Your task to perform on an android device: open the mobile data screen to see how much data has been used Image 0: 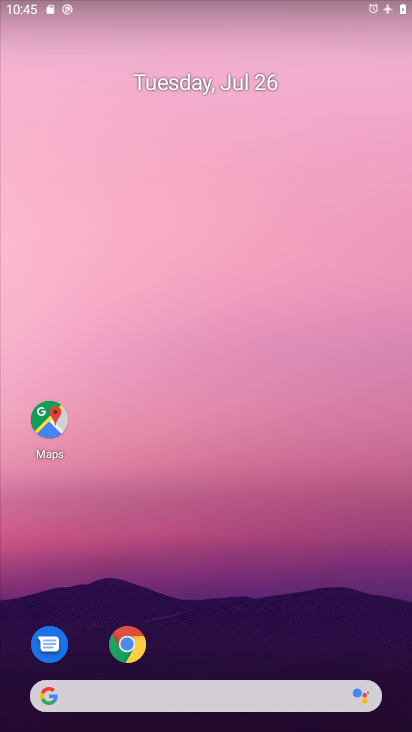
Step 0: drag from (211, 657) to (239, 109)
Your task to perform on an android device: open the mobile data screen to see how much data has been used Image 1: 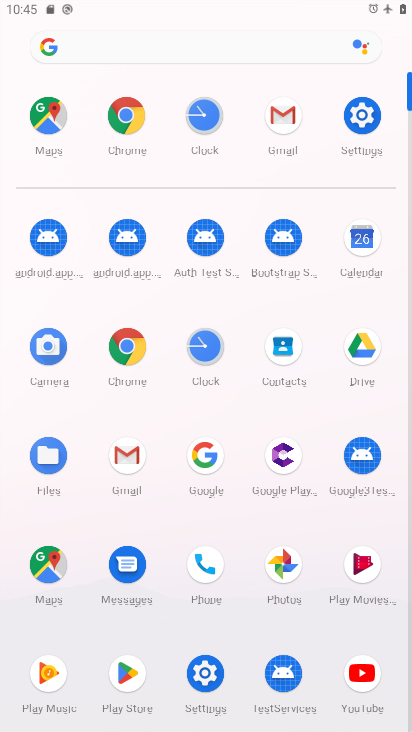
Step 1: click (358, 142)
Your task to perform on an android device: open the mobile data screen to see how much data has been used Image 2: 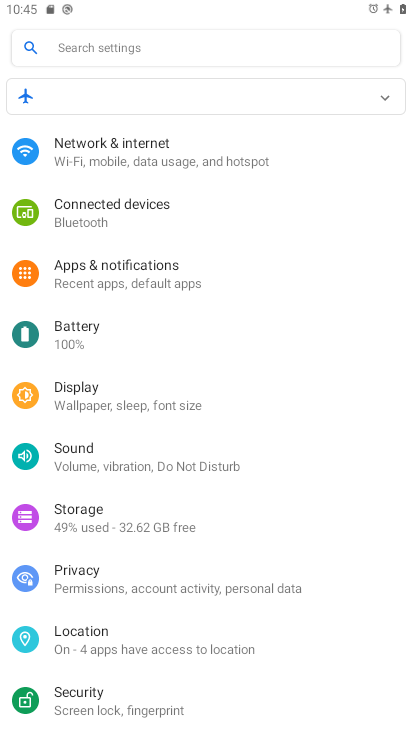
Step 2: click (143, 152)
Your task to perform on an android device: open the mobile data screen to see how much data has been used Image 3: 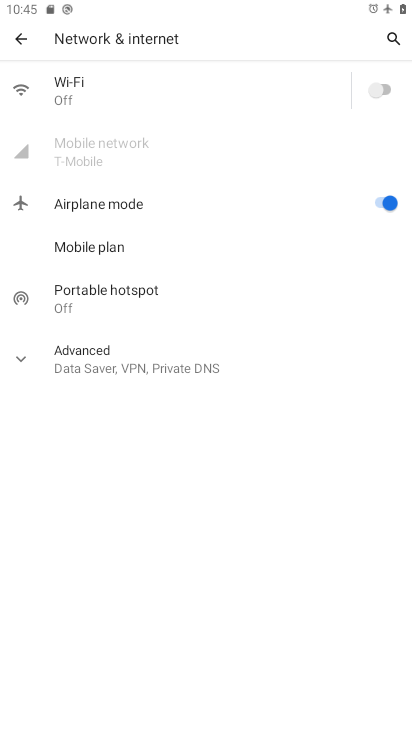
Step 3: click (372, 202)
Your task to perform on an android device: open the mobile data screen to see how much data has been used Image 4: 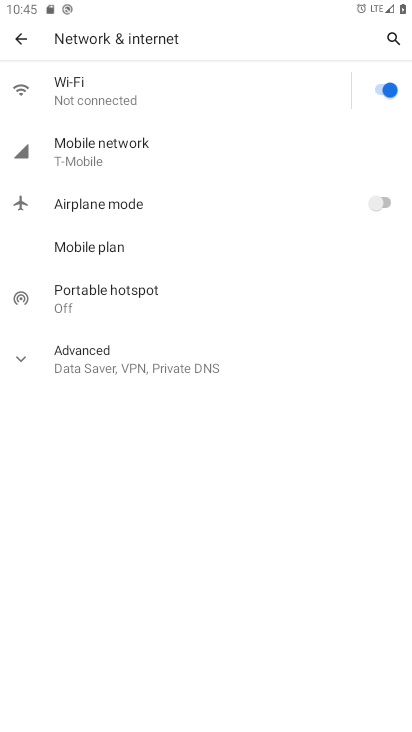
Step 4: click (133, 146)
Your task to perform on an android device: open the mobile data screen to see how much data has been used Image 5: 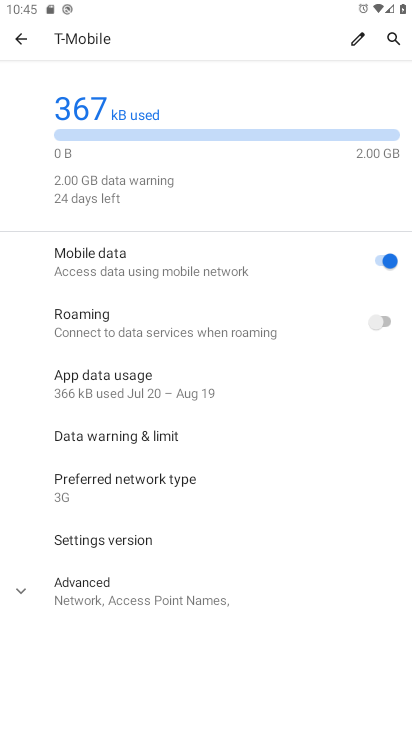
Step 5: click (158, 388)
Your task to perform on an android device: open the mobile data screen to see how much data has been used Image 6: 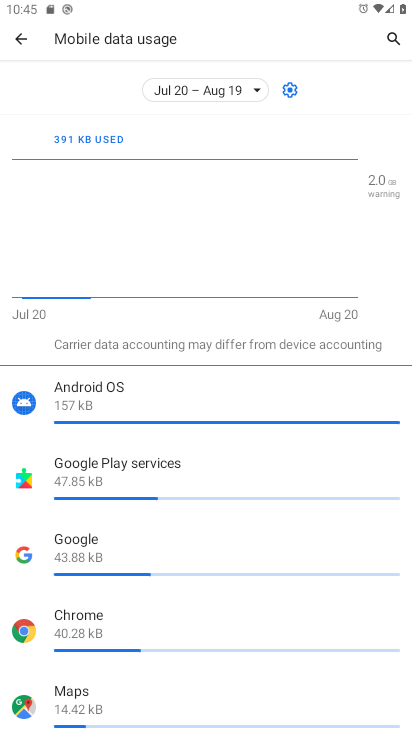
Step 6: task complete